Your task to perform on an android device: turn vacation reply on in the gmail app Image 0: 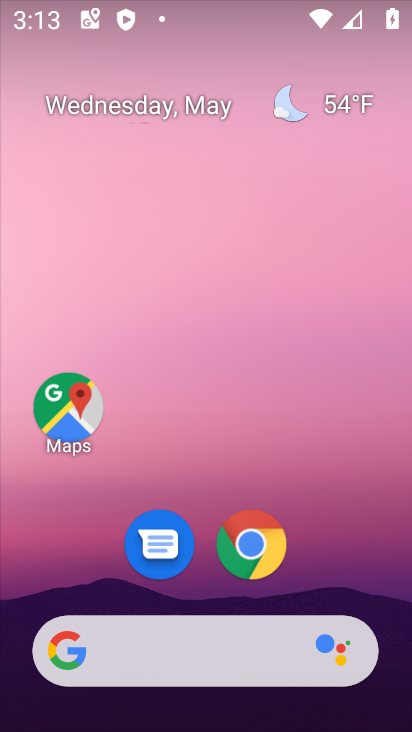
Step 0: drag from (363, 564) to (319, 112)
Your task to perform on an android device: turn vacation reply on in the gmail app Image 1: 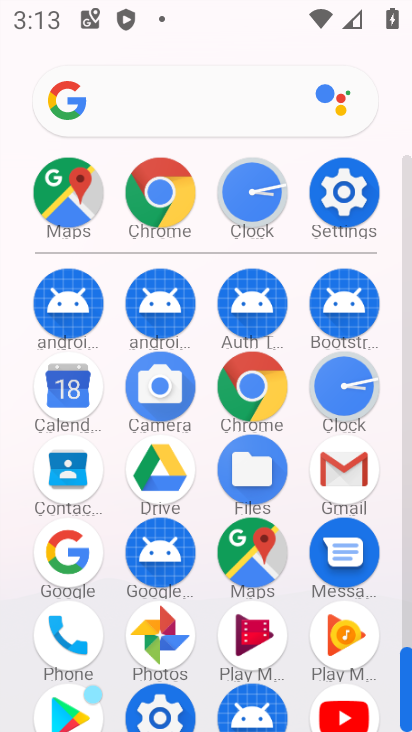
Step 1: click (336, 498)
Your task to perform on an android device: turn vacation reply on in the gmail app Image 2: 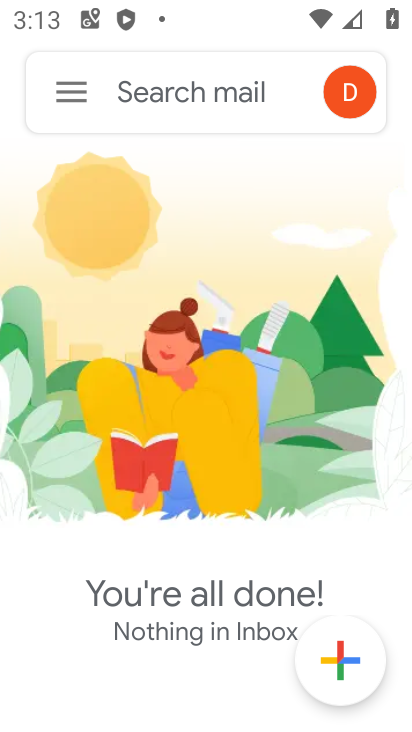
Step 2: click (88, 104)
Your task to perform on an android device: turn vacation reply on in the gmail app Image 3: 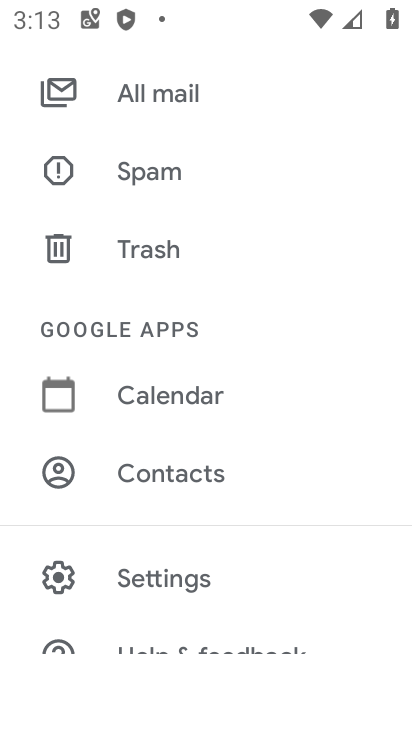
Step 3: click (123, 559)
Your task to perform on an android device: turn vacation reply on in the gmail app Image 4: 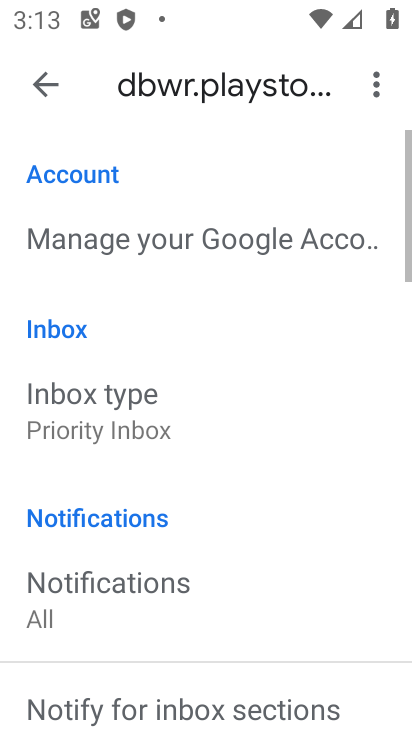
Step 4: drag from (123, 559) to (159, 293)
Your task to perform on an android device: turn vacation reply on in the gmail app Image 5: 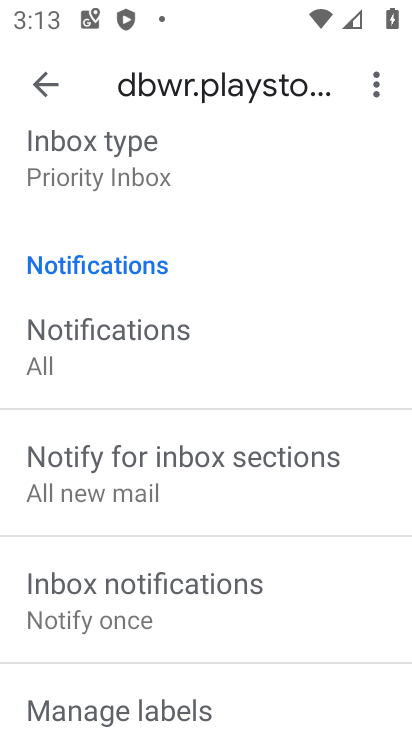
Step 5: drag from (159, 649) to (169, 394)
Your task to perform on an android device: turn vacation reply on in the gmail app Image 6: 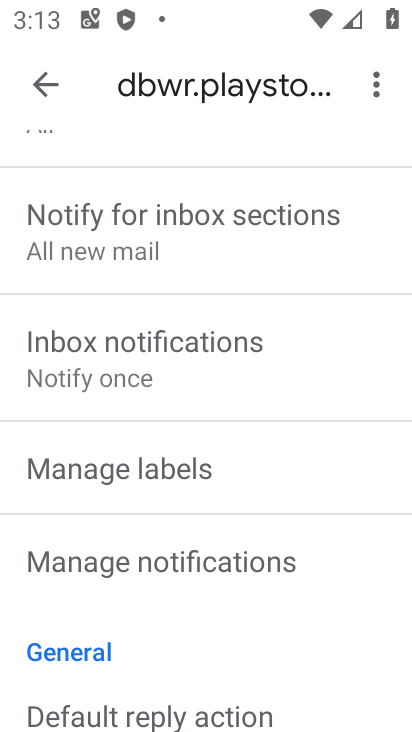
Step 6: drag from (209, 669) to (261, 320)
Your task to perform on an android device: turn vacation reply on in the gmail app Image 7: 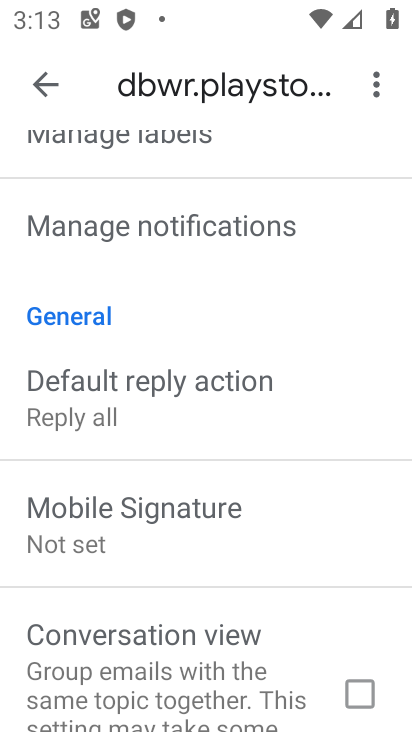
Step 7: drag from (224, 553) to (259, 325)
Your task to perform on an android device: turn vacation reply on in the gmail app Image 8: 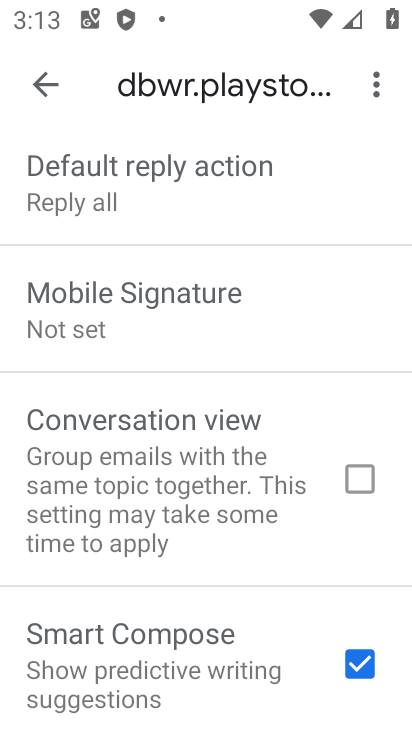
Step 8: drag from (233, 570) to (287, 302)
Your task to perform on an android device: turn vacation reply on in the gmail app Image 9: 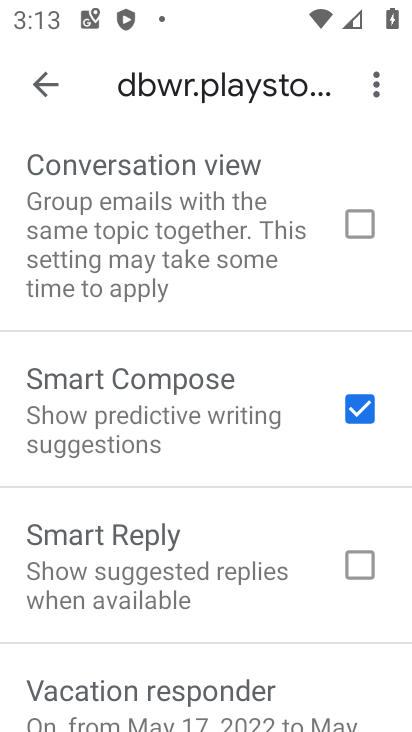
Step 9: drag from (245, 651) to (255, 537)
Your task to perform on an android device: turn vacation reply on in the gmail app Image 10: 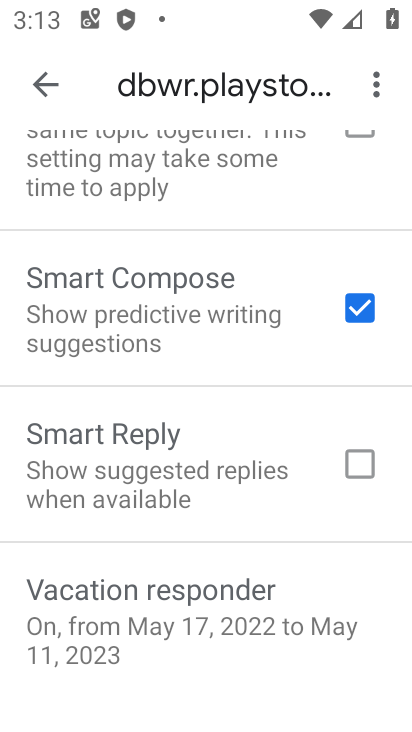
Step 10: click (248, 571)
Your task to perform on an android device: turn vacation reply on in the gmail app Image 11: 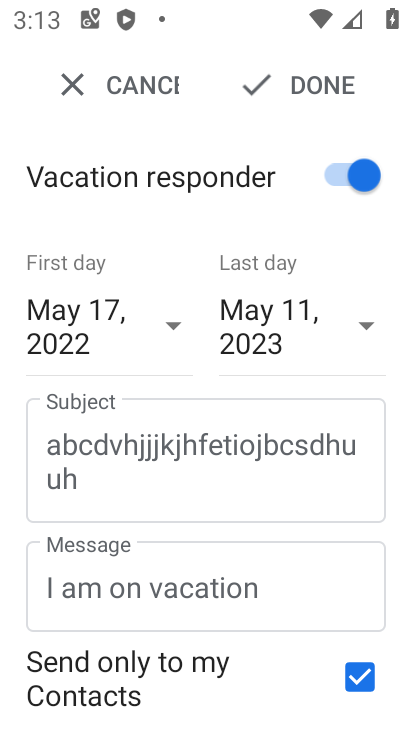
Step 11: click (354, 98)
Your task to perform on an android device: turn vacation reply on in the gmail app Image 12: 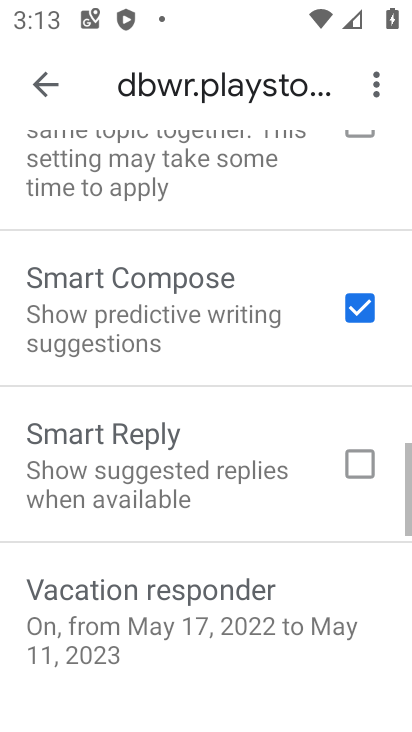
Step 12: task complete